Your task to perform on an android device: What's the weather going to be this weekend? Image 0: 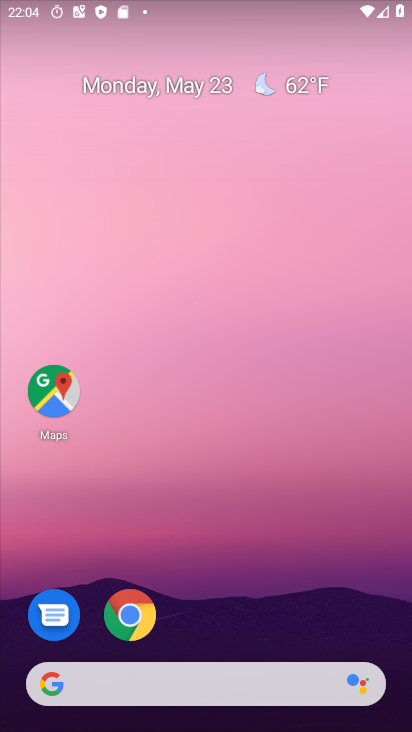
Step 0: drag from (240, 604) to (270, 183)
Your task to perform on an android device: What's the weather going to be this weekend? Image 1: 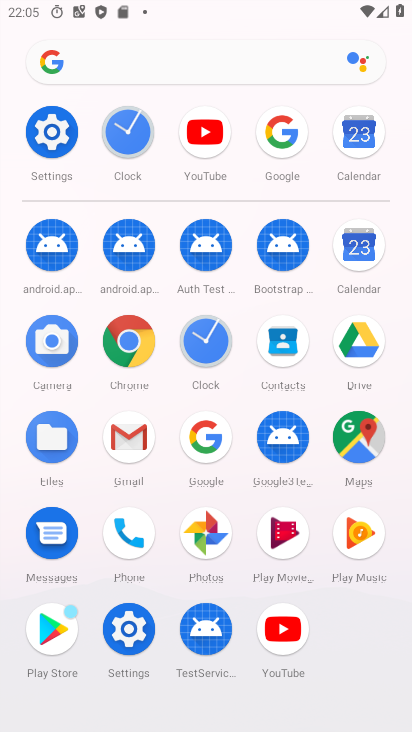
Step 1: click (216, 447)
Your task to perform on an android device: What's the weather going to be this weekend? Image 2: 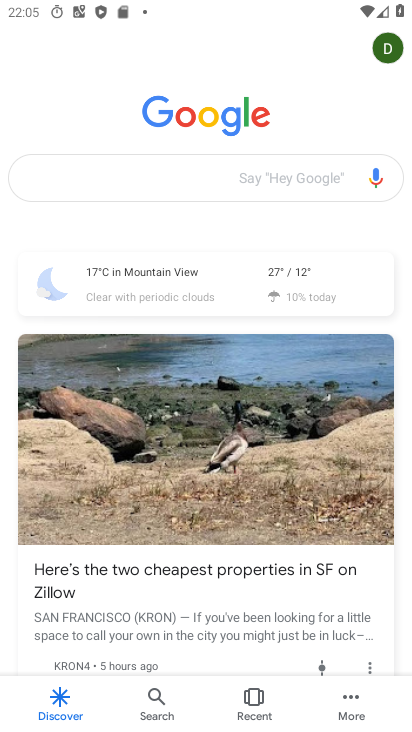
Step 2: click (120, 172)
Your task to perform on an android device: What's the weather going to be this weekend? Image 3: 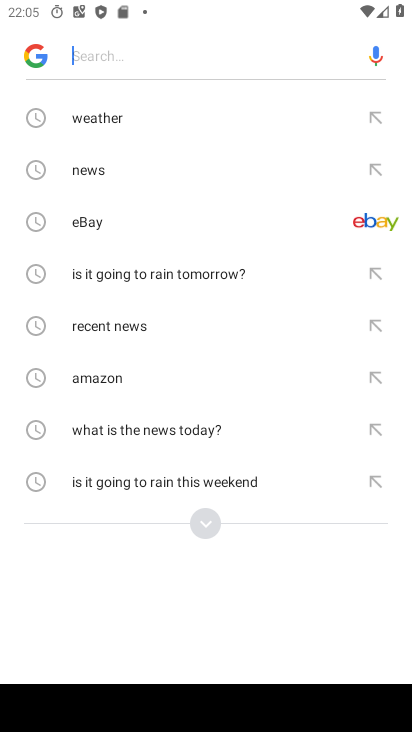
Step 3: type "weather going to be this weekend"
Your task to perform on an android device: What's the weather going to be this weekend? Image 4: 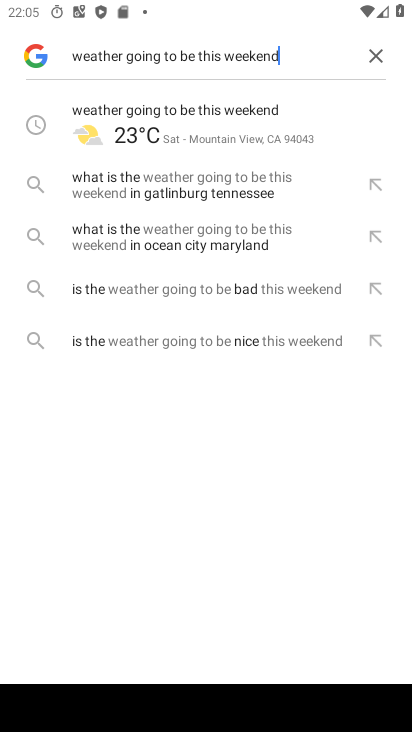
Step 4: click (170, 106)
Your task to perform on an android device: What's the weather going to be this weekend? Image 5: 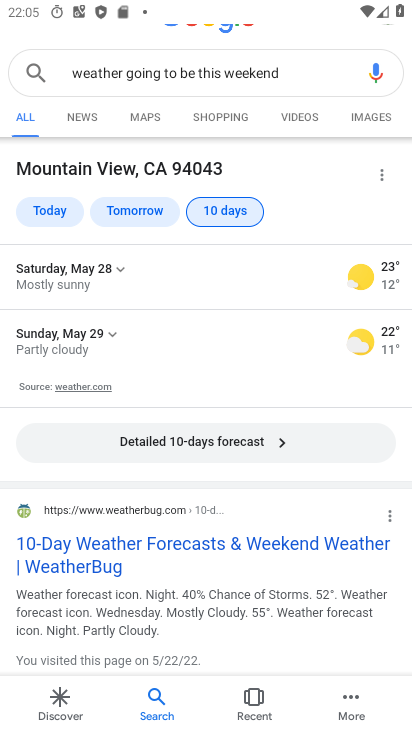
Step 5: task complete